Your task to perform on an android device: install app "PUBG MOBILE" Image 0: 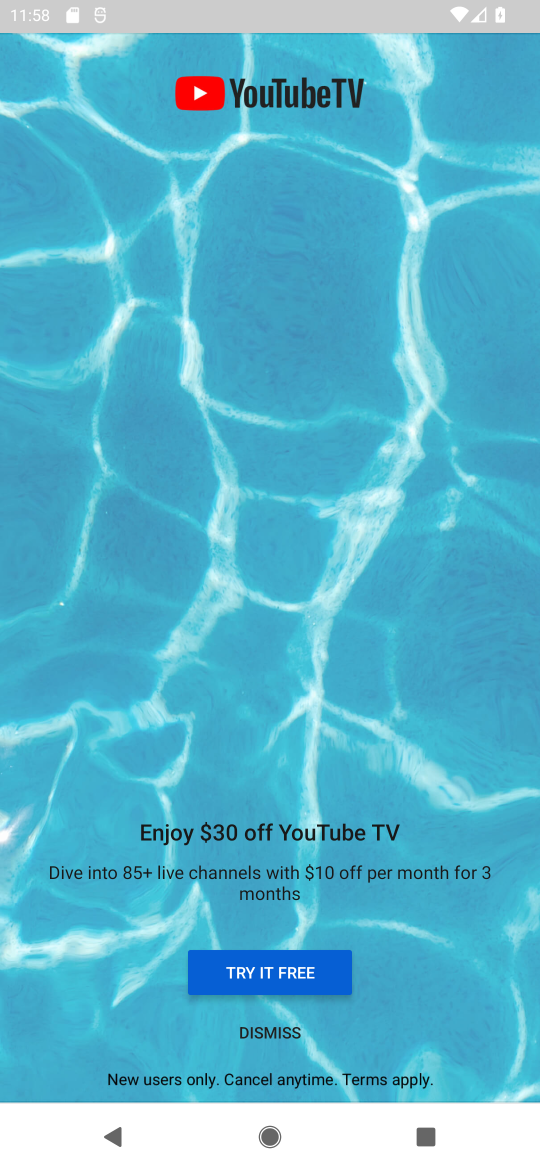
Step 0: press home button
Your task to perform on an android device: install app "PUBG MOBILE" Image 1: 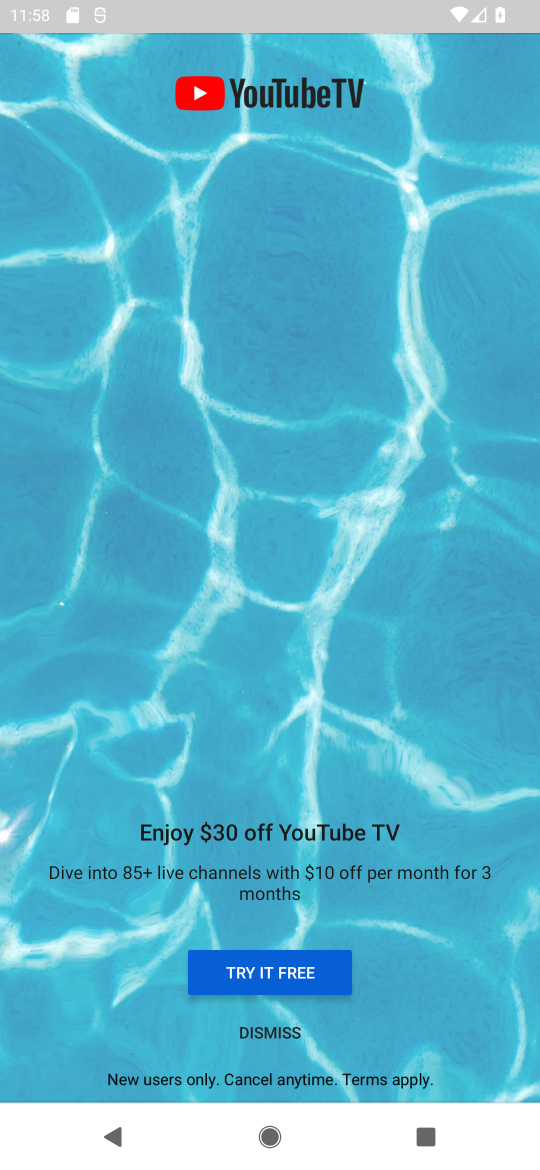
Step 1: press home button
Your task to perform on an android device: install app "PUBG MOBILE" Image 2: 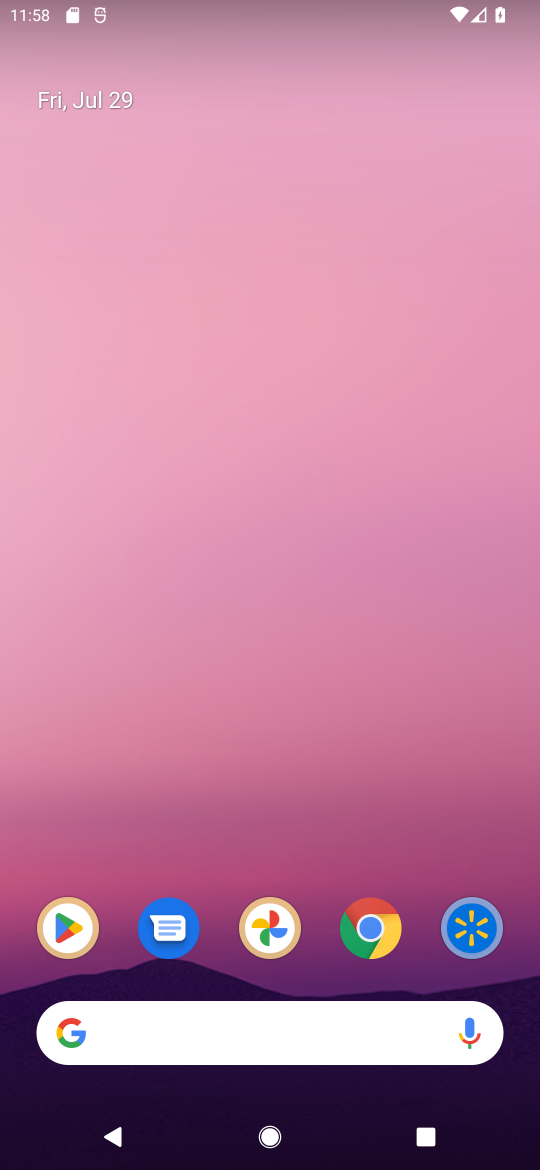
Step 2: drag from (392, 817) to (410, 106)
Your task to perform on an android device: install app "PUBG MOBILE" Image 3: 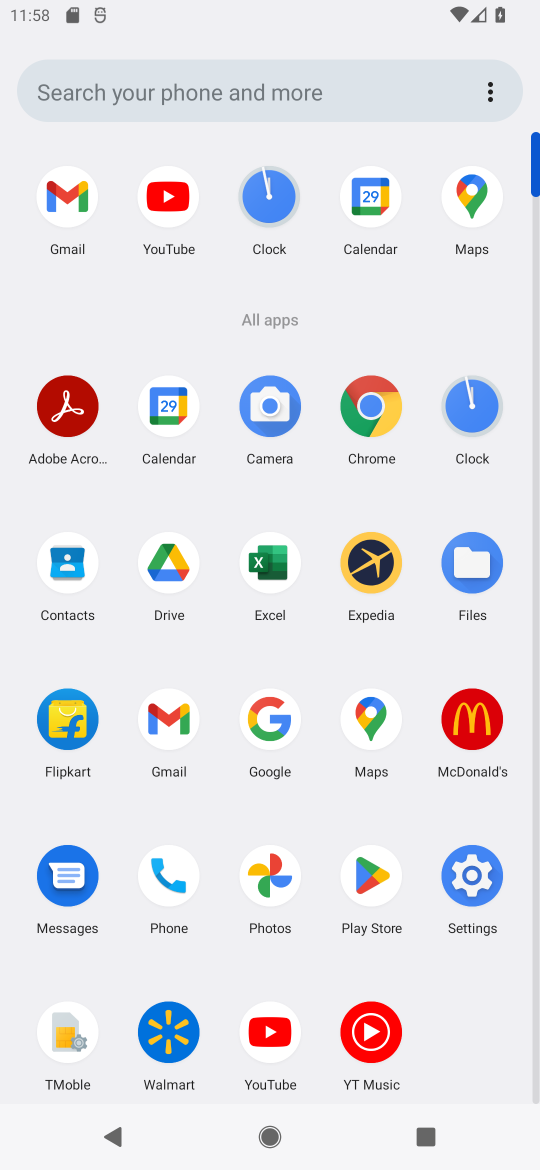
Step 3: click (368, 876)
Your task to perform on an android device: install app "PUBG MOBILE" Image 4: 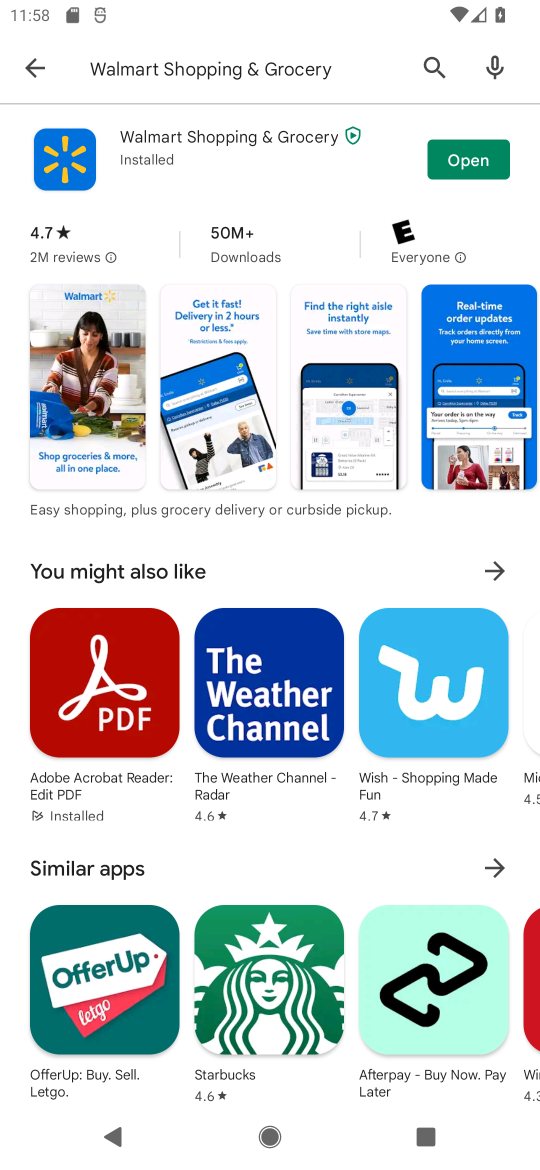
Step 4: click (303, 66)
Your task to perform on an android device: install app "PUBG MOBILE" Image 5: 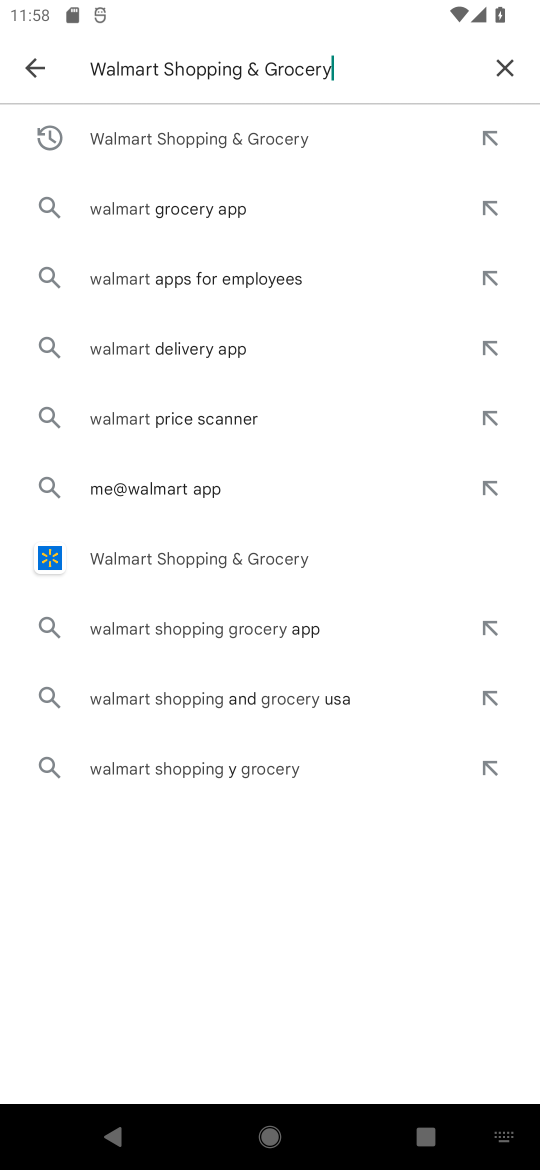
Step 5: click (509, 66)
Your task to perform on an android device: install app "PUBG MOBILE" Image 6: 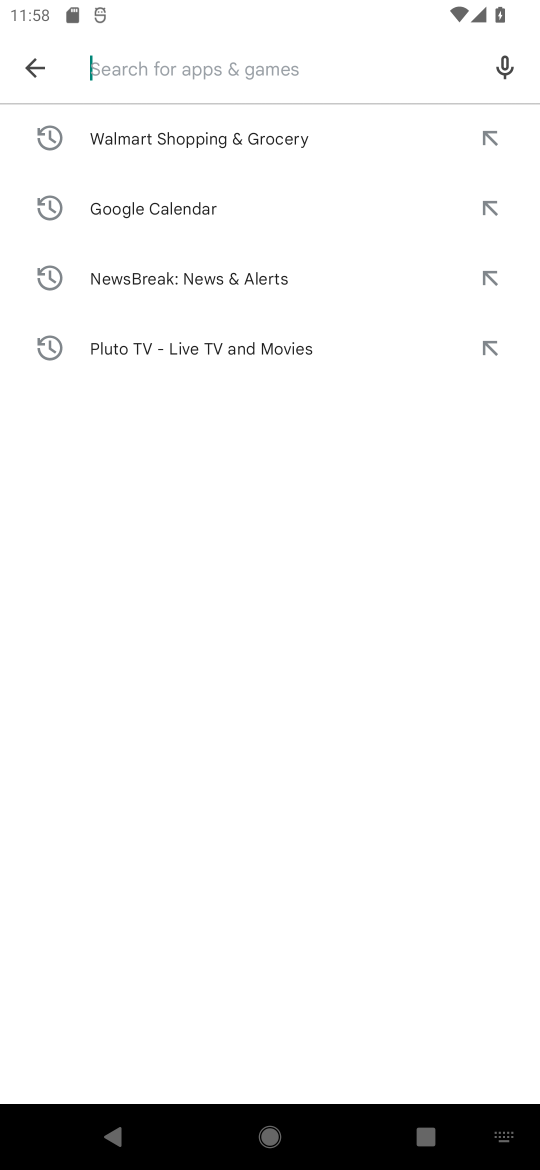
Step 6: type "PUBG MOBILE"
Your task to perform on an android device: install app "PUBG MOBILE" Image 7: 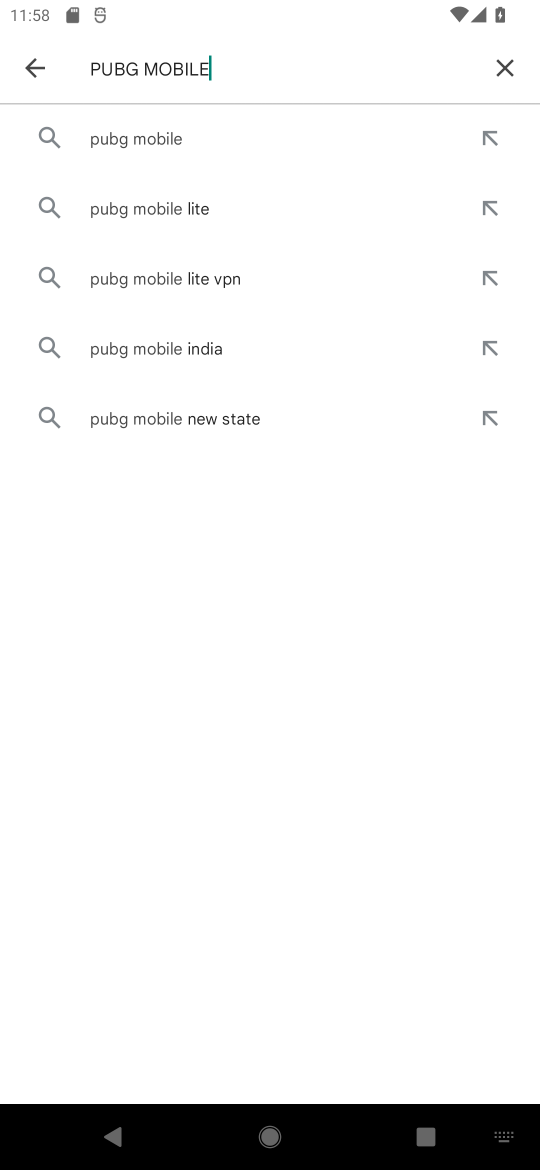
Step 7: press enter
Your task to perform on an android device: install app "PUBG MOBILE" Image 8: 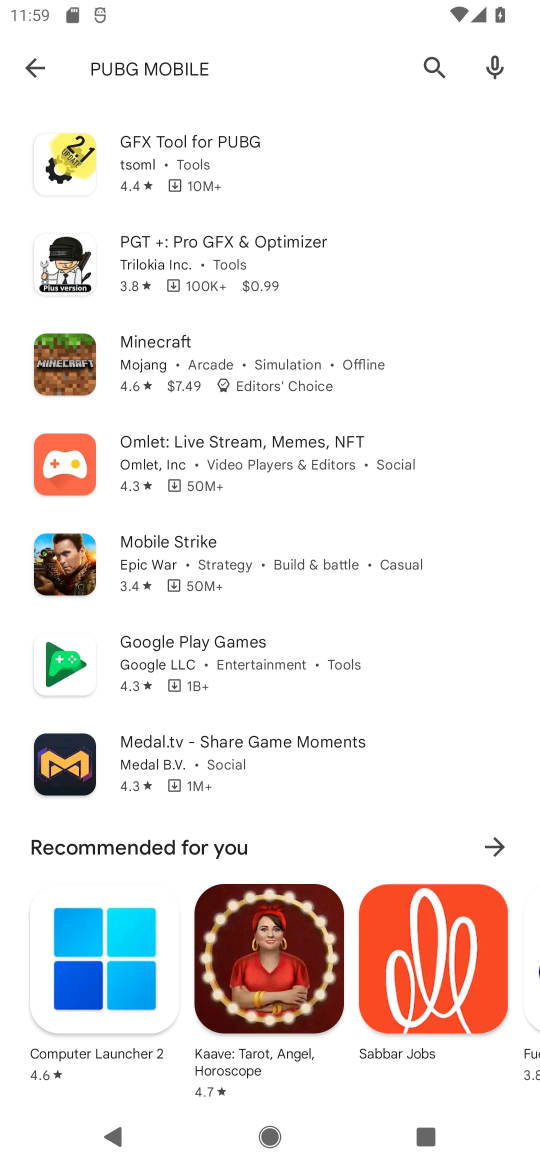
Step 8: task complete